Your task to perform on an android device: Open Yahoo.com Image 0: 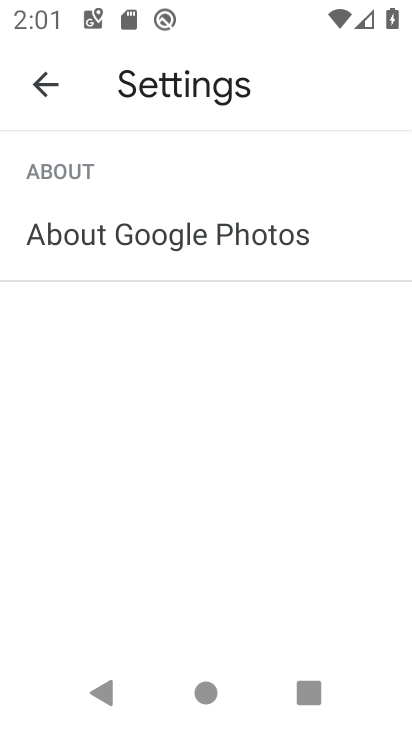
Step 0: press home button
Your task to perform on an android device: Open Yahoo.com Image 1: 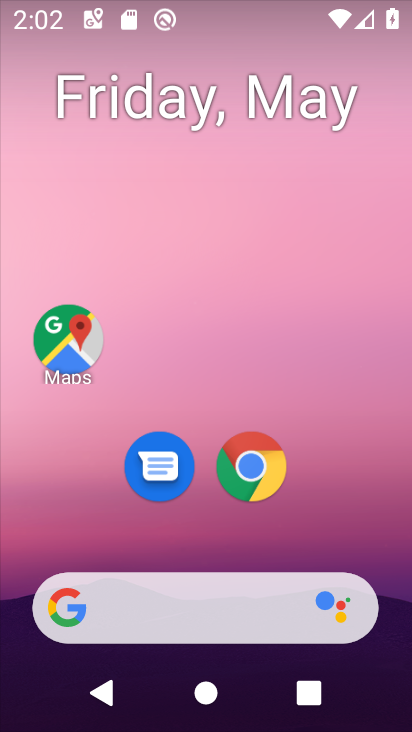
Step 1: drag from (358, 511) to (389, 53)
Your task to perform on an android device: Open Yahoo.com Image 2: 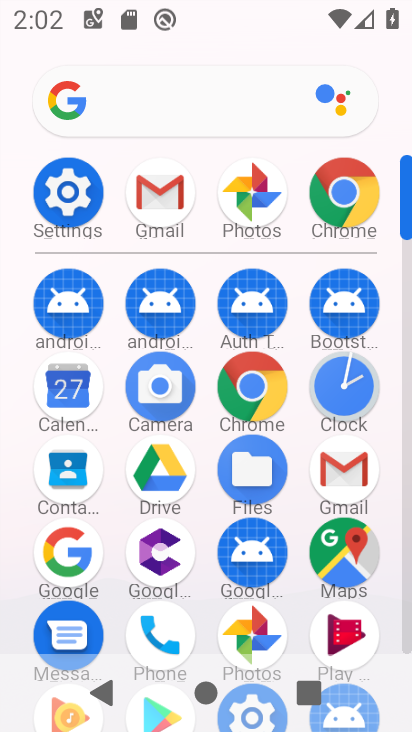
Step 2: click (338, 187)
Your task to perform on an android device: Open Yahoo.com Image 3: 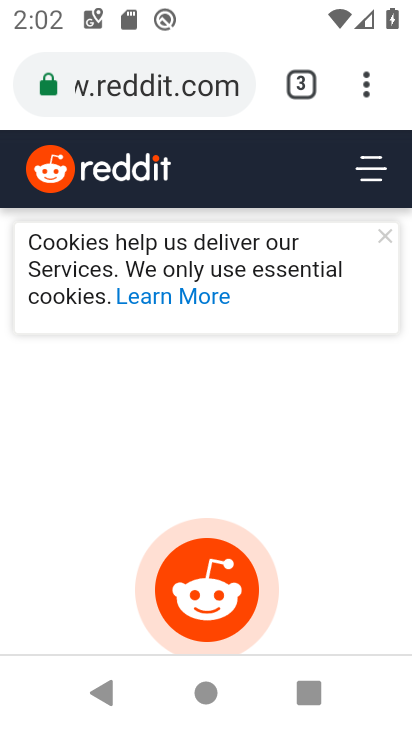
Step 3: click (160, 87)
Your task to perform on an android device: Open Yahoo.com Image 4: 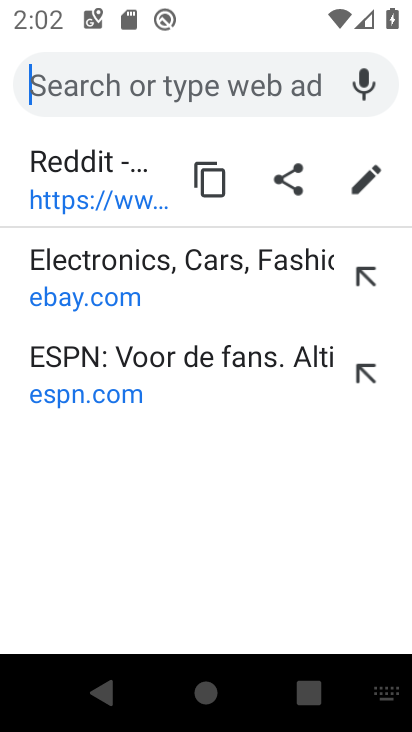
Step 4: type "yahoo"
Your task to perform on an android device: Open Yahoo.com Image 5: 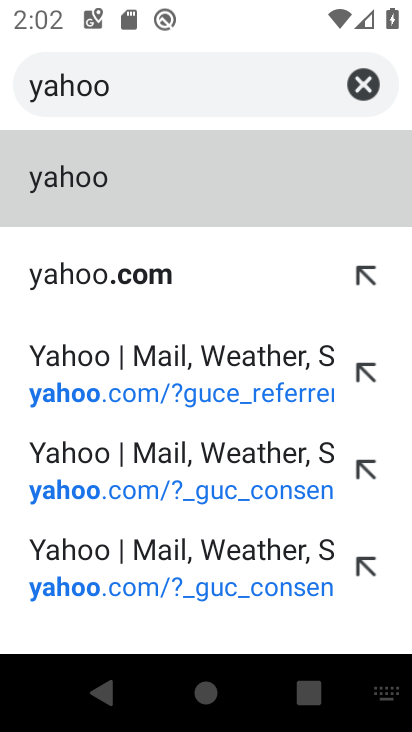
Step 5: click (164, 294)
Your task to perform on an android device: Open Yahoo.com Image 6: 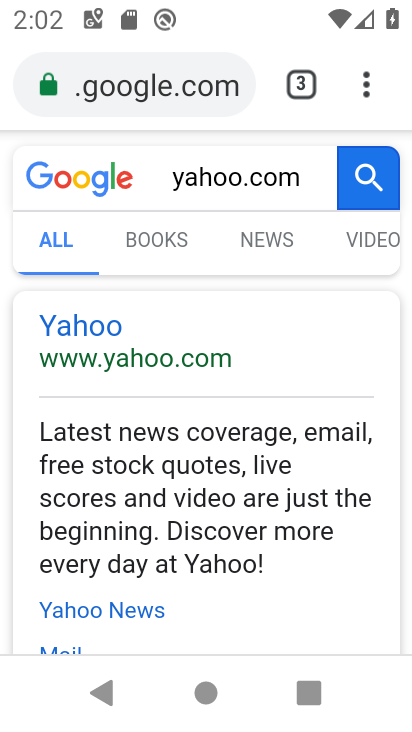
Step 6: click (74, 333)
Your task to perform on an android device: Open Yahoo.com Image 7: 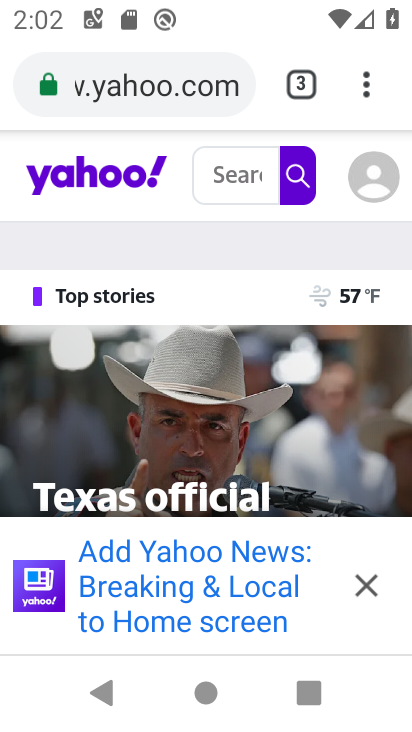
Step 7: task complete